Your task to perform on an android device: Open privacy settings Image 0: 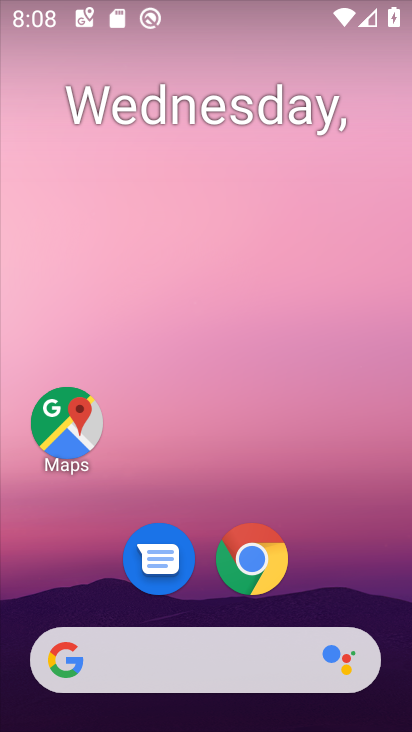
Step 0: drag from (372, 565) to (312, 103)
Your task to perform on an android device: Open privacy settings Image 1: 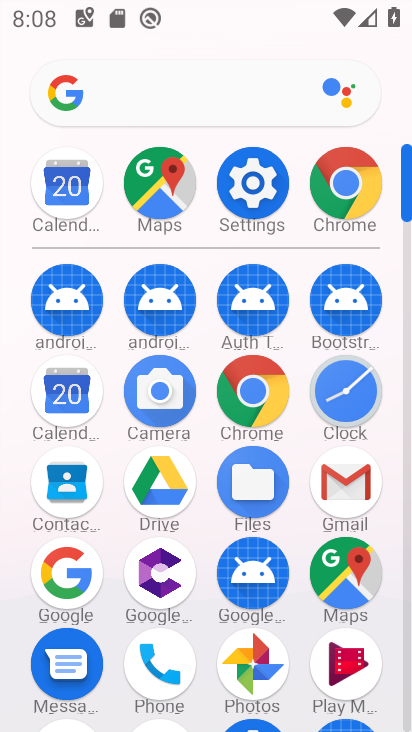
Step 1: click (263, 163)
Your task to perform on an android device: Open privacy settings Image 2: 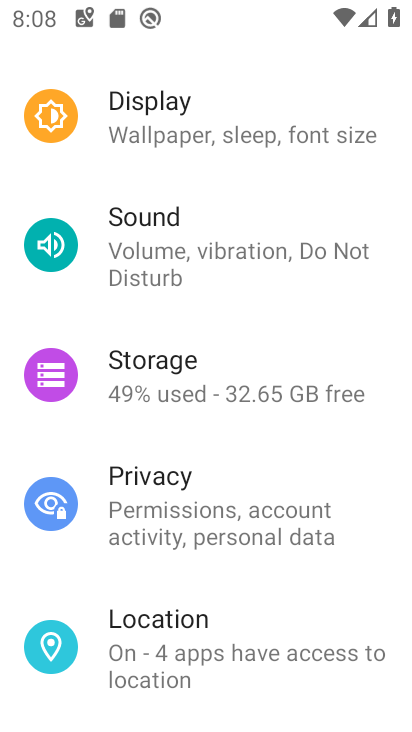
Step 2: click (251, 520)
Your task to perform on an android device: Open privacy settings Image 3: 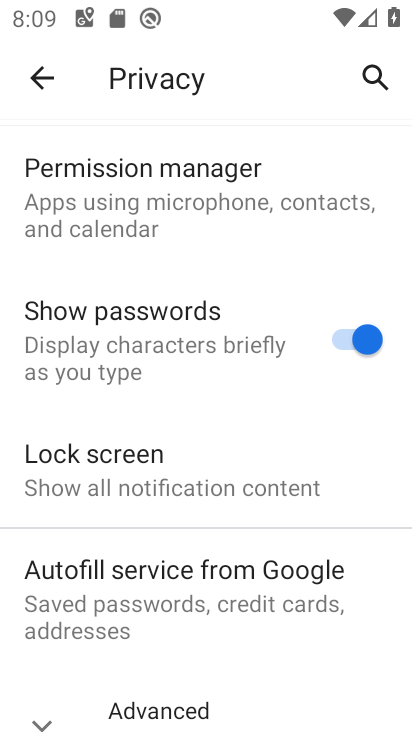
Step 3: task complete